Your task to perform on an android device: add a label to a message in the gmail app Image 0: 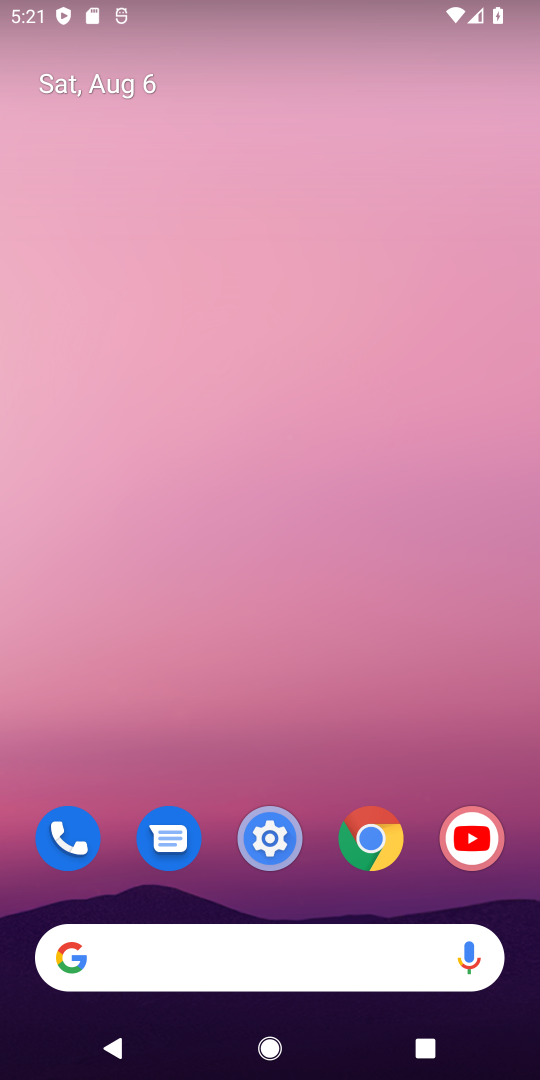
Step 0: drag from (256, 893) to (294, 25)
Your task to perform on an android device: add a label to a message in the gmail app Image 1: 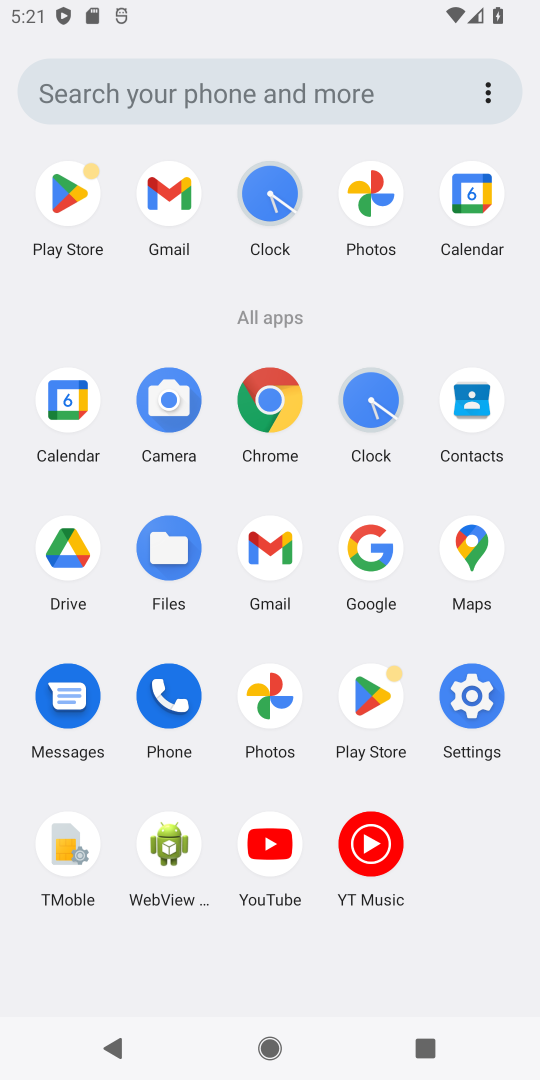
Step 1: click (265, 564)
Your task to perform on an android device: add a label to a message in the gmail app Image 2: 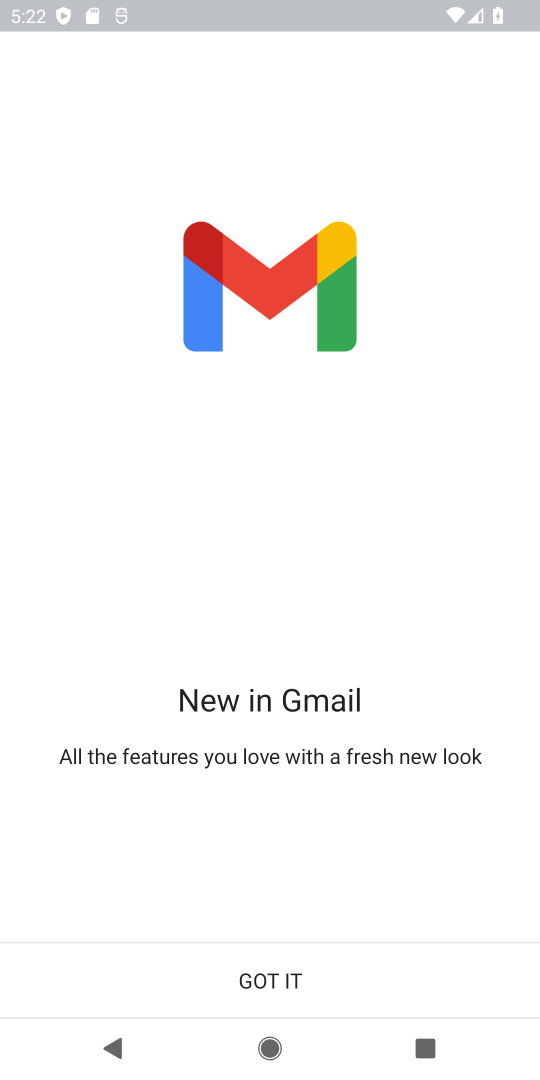
Step 2: click (266, 978)
Your task to perform on an android device: add a label to a message in the gmail app Image 3: 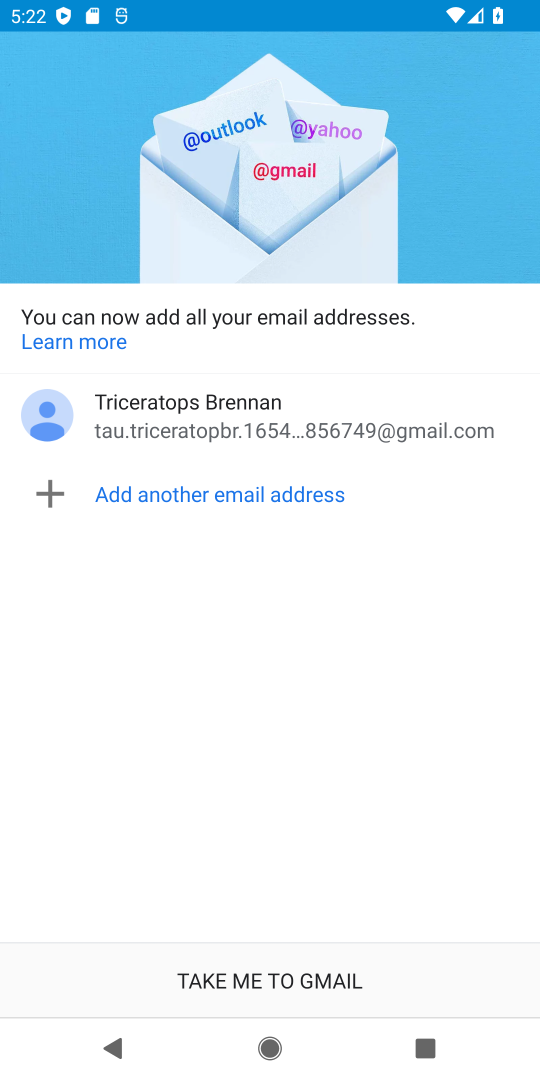
Step 3: click (246, 983)
Your task to perform on an android device: add a label to a message in the gmail app Image 4: 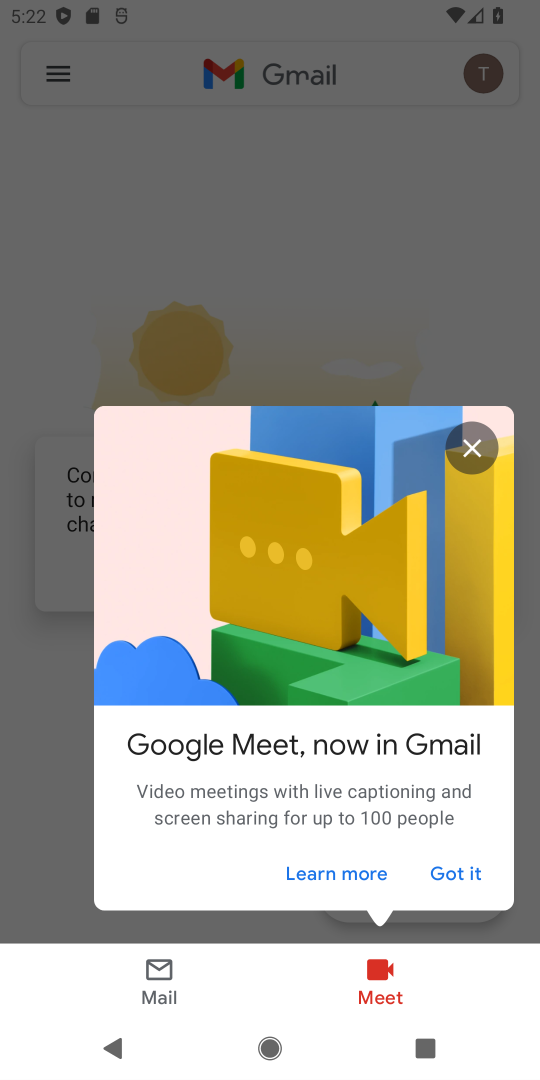
Step 4: click (472, 436)
Your task to perform on an android device: add a label to a message in the gmail app Image 5: 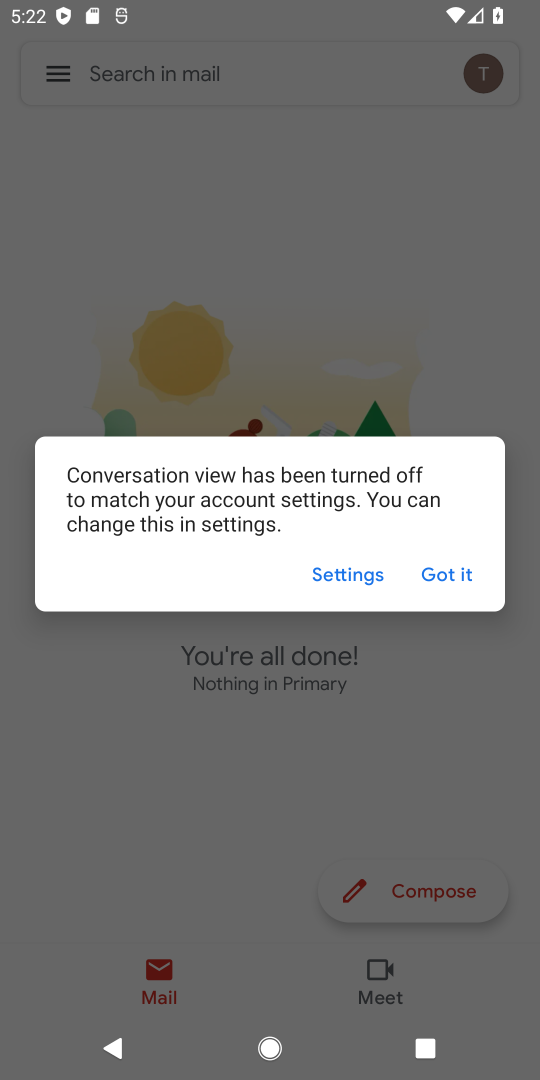
Step 5: click (449, 573)
Your task to perform on an android device: add a label to a message in the gmail app Image 6: 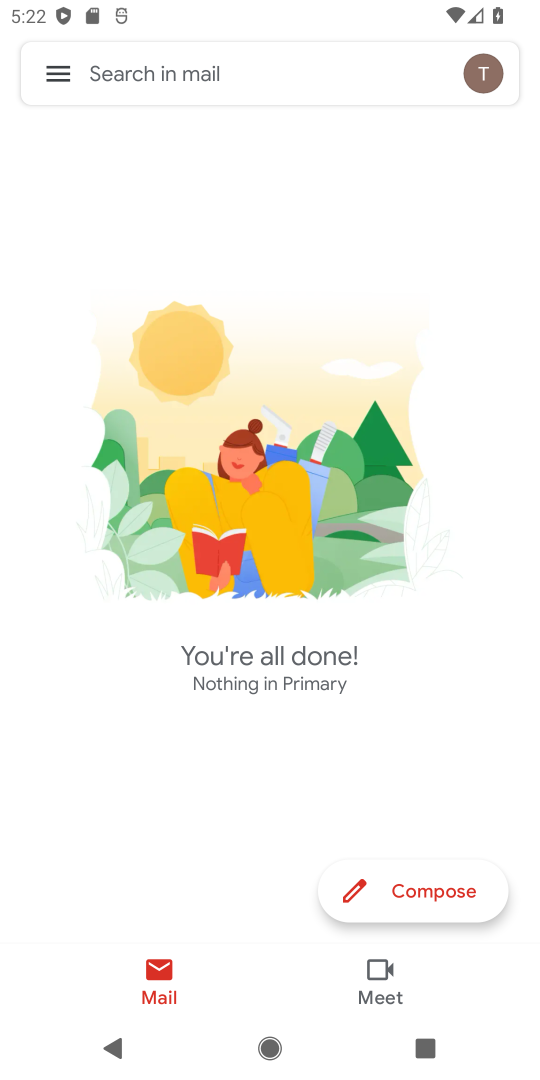
Step 6: task complete